Your task to perform on an android device: Go to Yahoo.com Image 0: 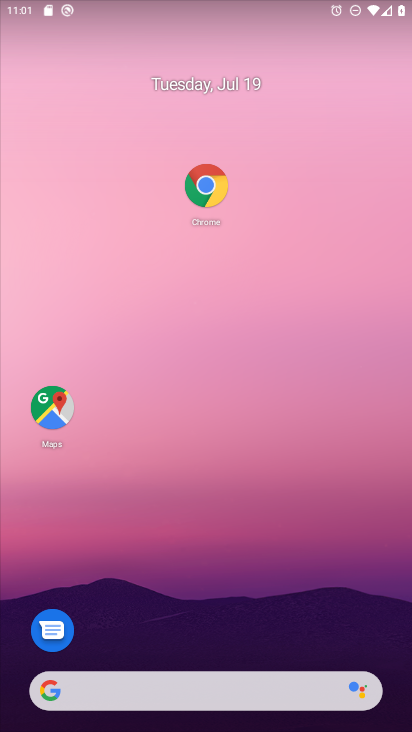
Step 0: drag from (258, 544) to (256, 162)
Your task to perform on an android device: Go to Yahoo.com Image 1: 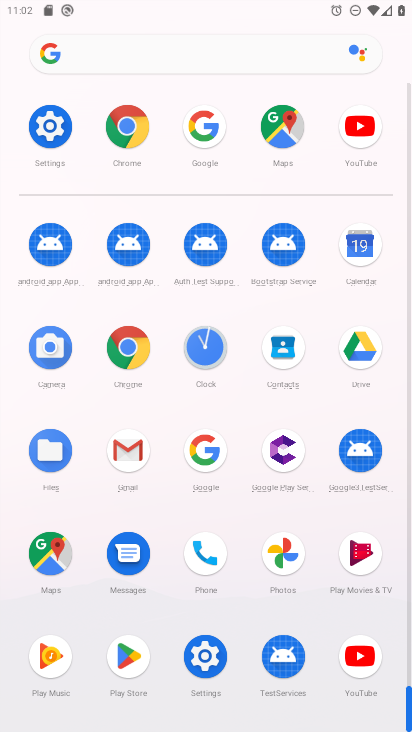
Step 1: click (121, 371)
Your task to perform on an android device: Go to Yahoo.com Image 2: 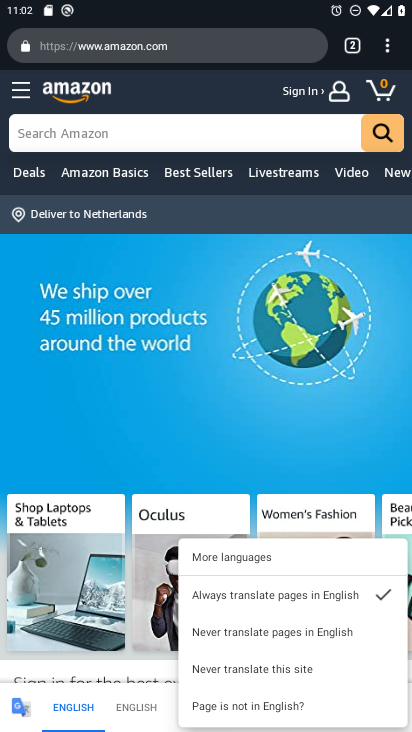
Step 2: click (189, 51)
Your task to perform on an android device: Go to Yahoo.com Image 3: 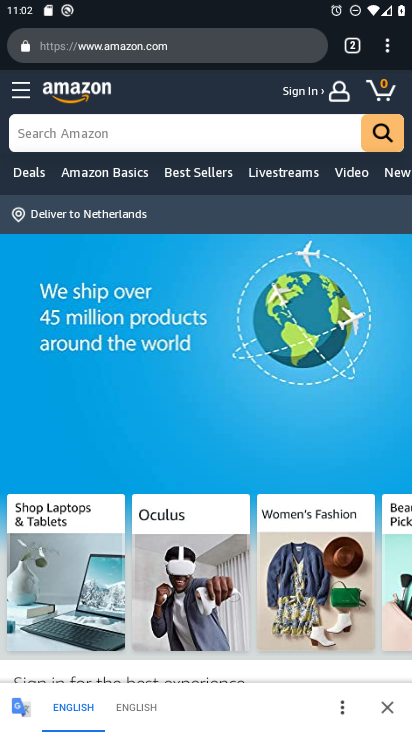
Step 3: click (189, 51)
Your task to perform on an android device: Go to Yahoo.com Image 4: 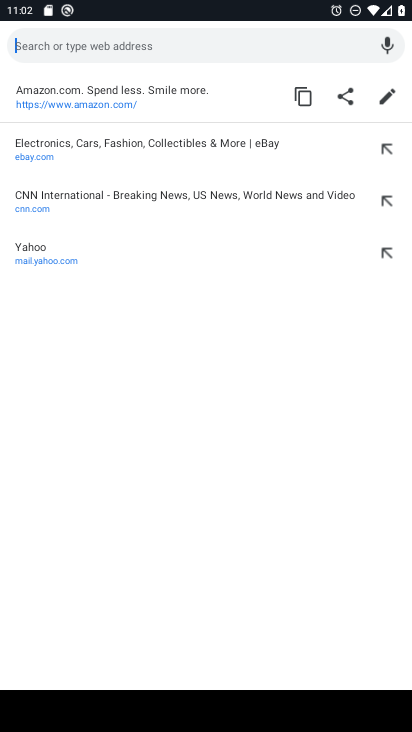
Step 4: click (105, 248)
Your task to perform on an android device: Go to Yahoo.com Image 5: 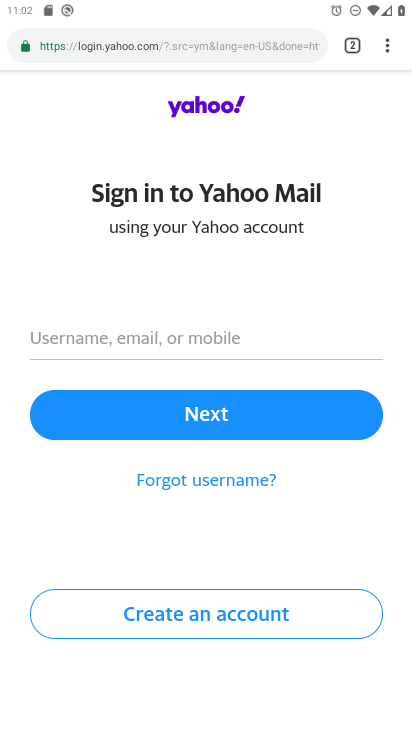
Step 5: task complete